Your task to perform on an android device: turn vacation reply on in the gmail app Image 0: 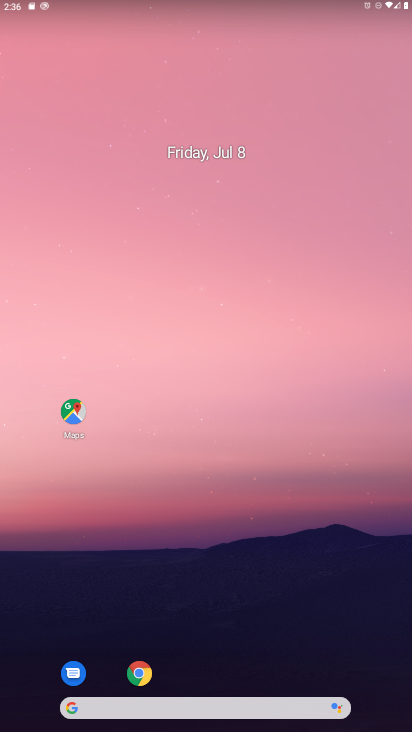
Step 0: drag from (362, 373) to (346, 186)
Your task to perform on an android device: turn vacation reply on in the gmail app Image 1: 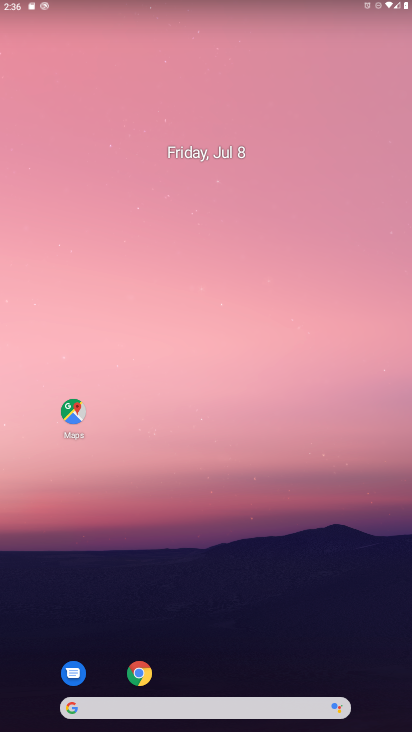
Step 1: drag from (390, 647) to (321, 9)
Your task to perform on an android device: turn vacation reply on in the gmail app Image 2: 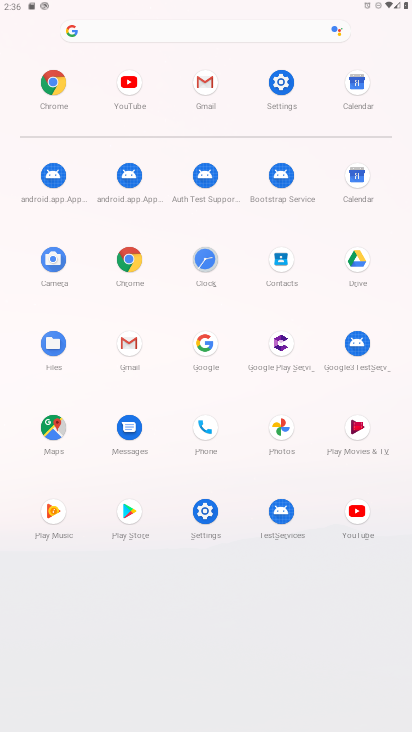
Step 2: click (132, 340)
Your task to perform on an android device: turn vacation reply on in the gmail app Image 3: 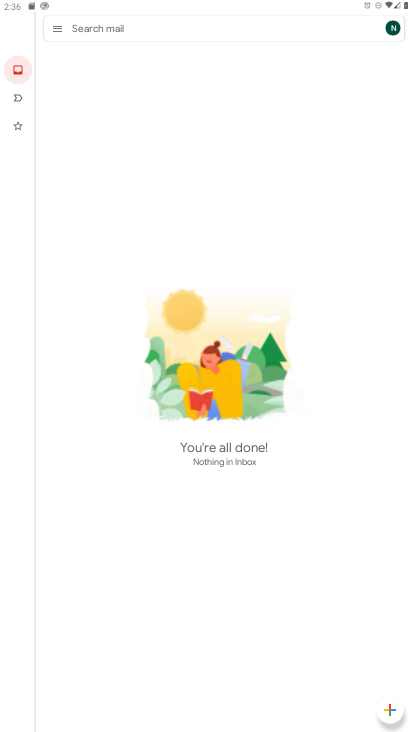
Step 3: click (55, 28)
Your task to perform on an android device: turn vacation reply on in the gmail app Image 4: 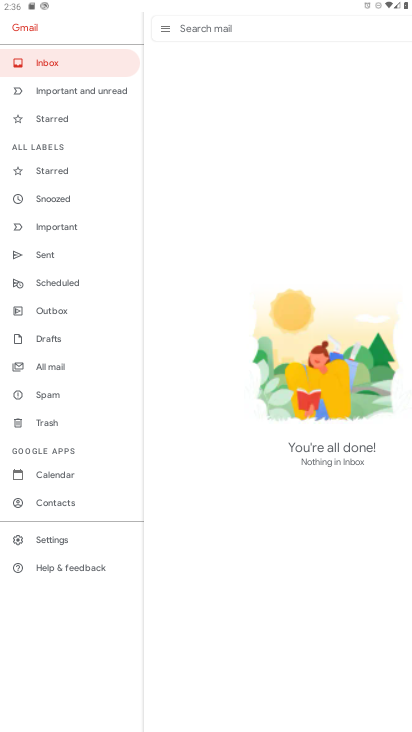
Step 4: click (37, 537)
Your task to perform on an android device: turn vacation reply on in the gmail app Image 5: 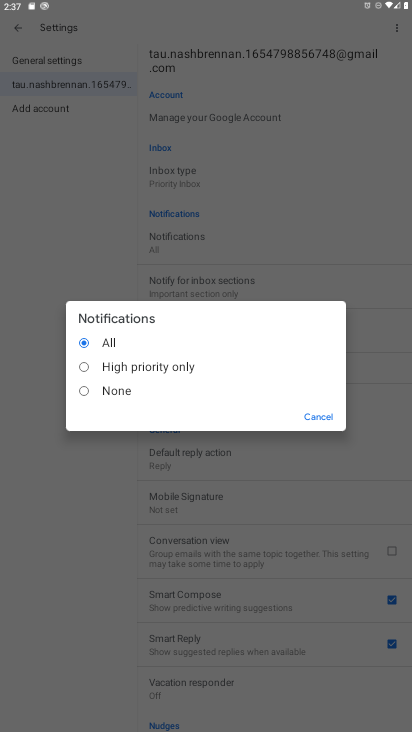
Step 5: click (330, 416)
Your task to perform on an android device: turn vacation reply on in the gmail app Image 6: 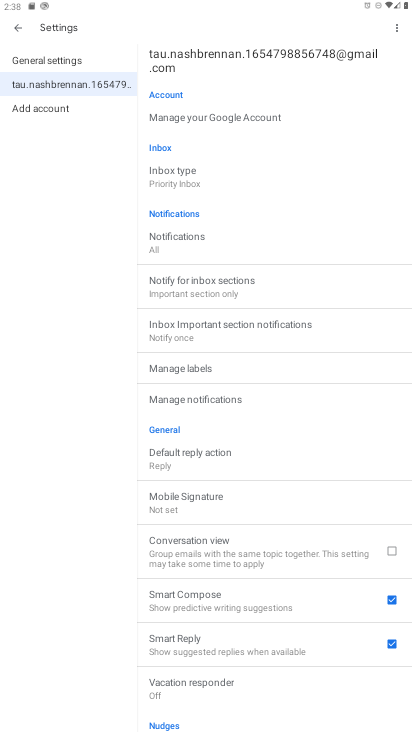
Step 6: click (200, 682)
Your task to perform on an android device: turn vacation reply on in the gmail app Image 7: 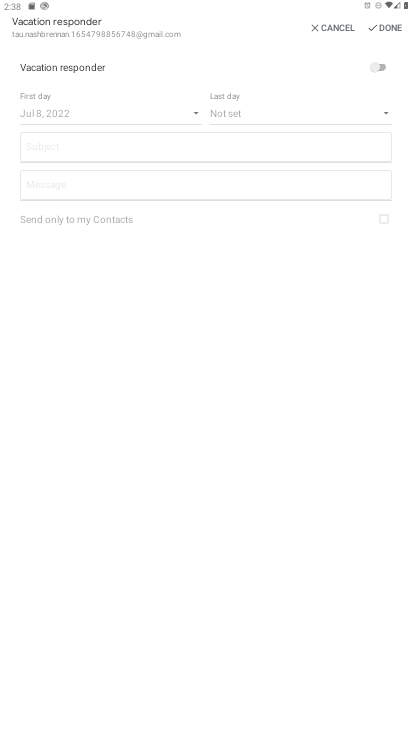
Step 7: click (380, 63)
Your task to perform on an android device: turn vacation reply on in the gmail app Image 8: 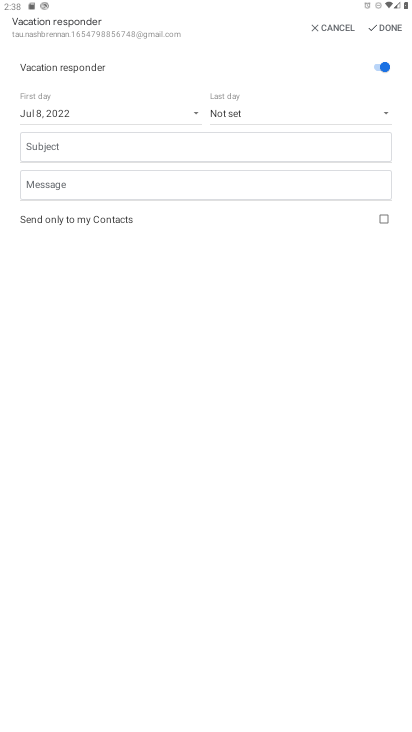
Step 8: task complete